Your task to perform on an android device: open a bookmark in the chrome app Image 0: 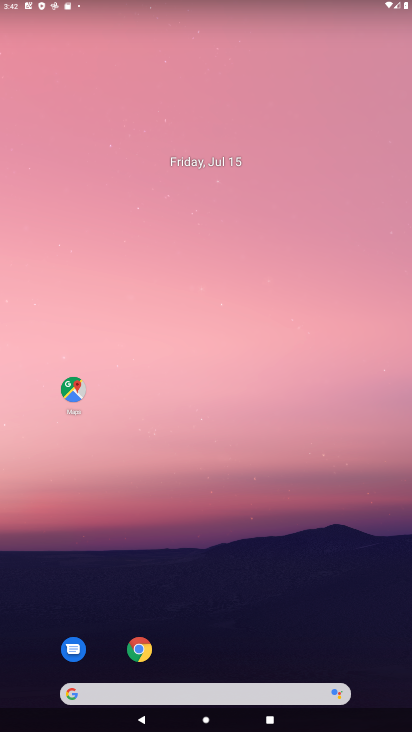
Step 0: drag from (228, 623) to (260, 113)
Your task to perform on an android device: open a bookmark in the chrome app Image 1: 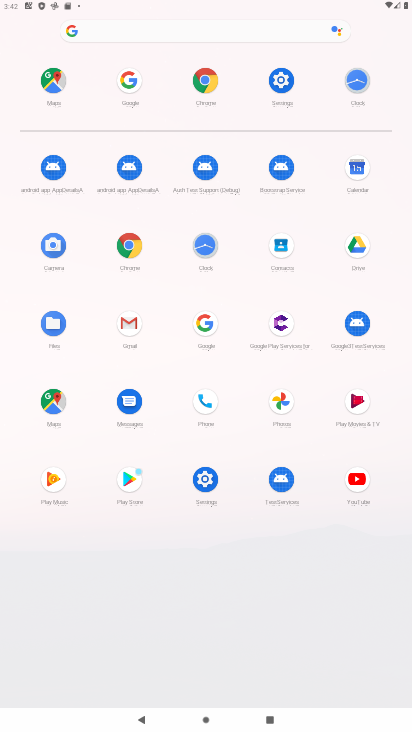
Step 1: click (200, 78)
Your task to perform on an android device: open a bookmark in the chrome app Image 2: 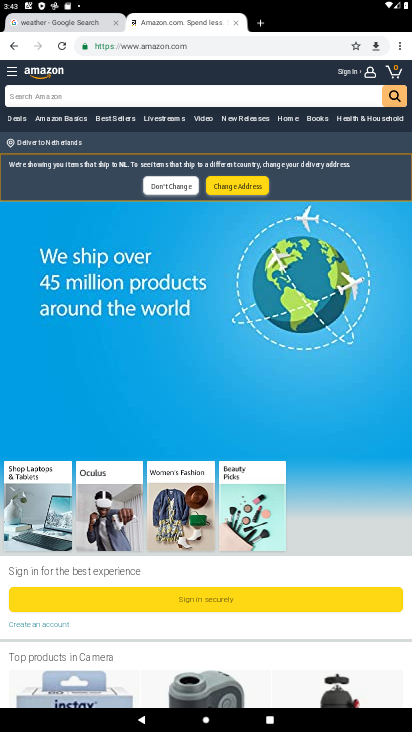
Step 2: drag from (395, 43) to (324, 96)
Your task to perform on an android device: open a bookmark in the chrome app Image 3: 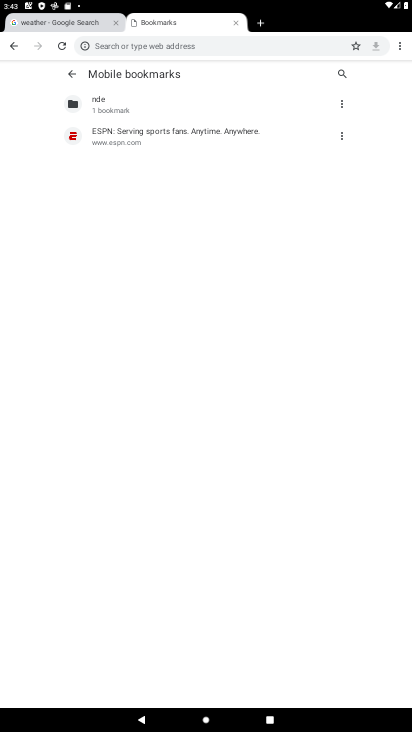
Step 3: click (158, 132)
Your task to perform on an android device: open a bookmark in the chrome app Image 4: 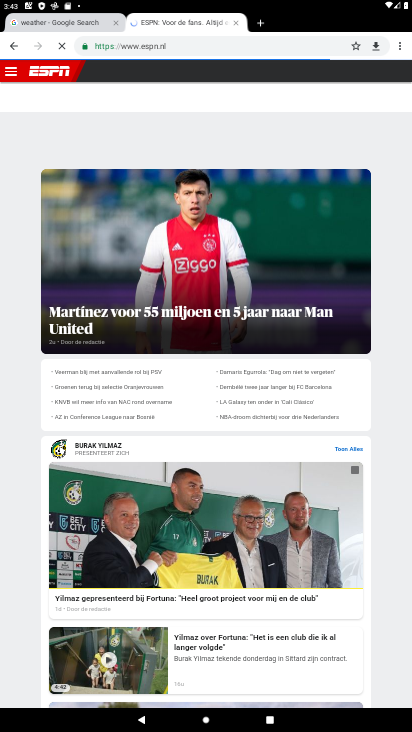
Step 4: task complete